Your task to perform on an android device: delete a single message in the gmail app Image 0: 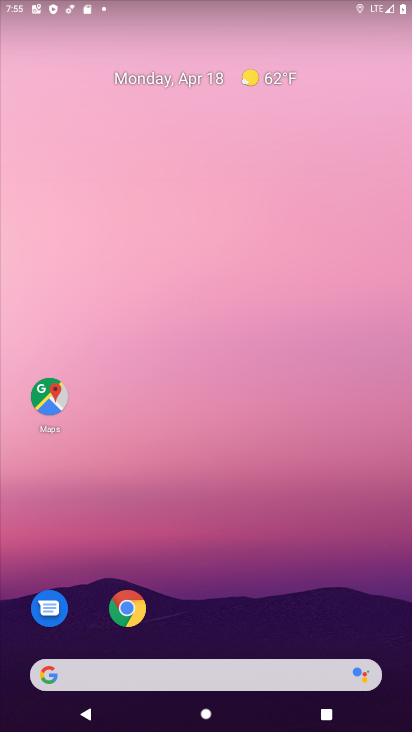
Step 0: drag from (207, 663) to (156, 115)
Your task to perform on an android device: delete a single message in the gmail app Image 1: 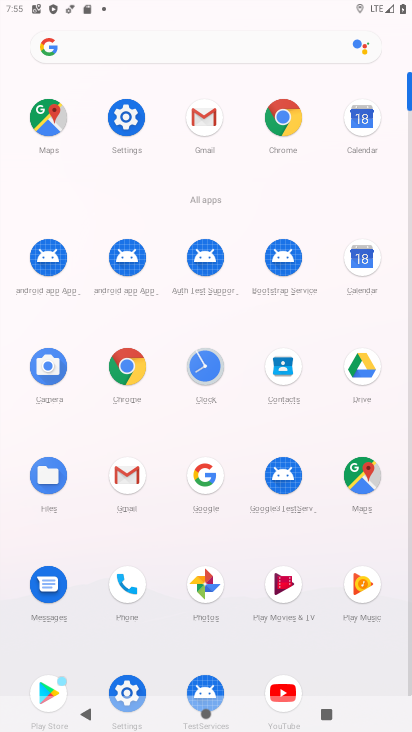
Step 1: click (201, 123)
Your task to perform on an android device: delete a single message in the gmail app Image 2: 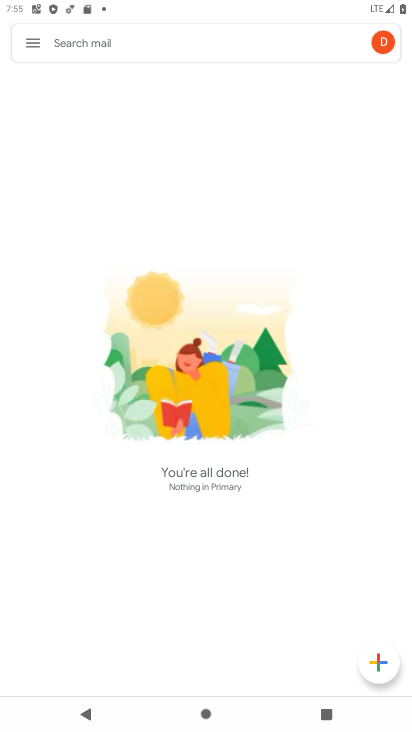
Step 2: click (23, 43)
Your task to perform on an android device: delete a single message in the gmail app Image 3: 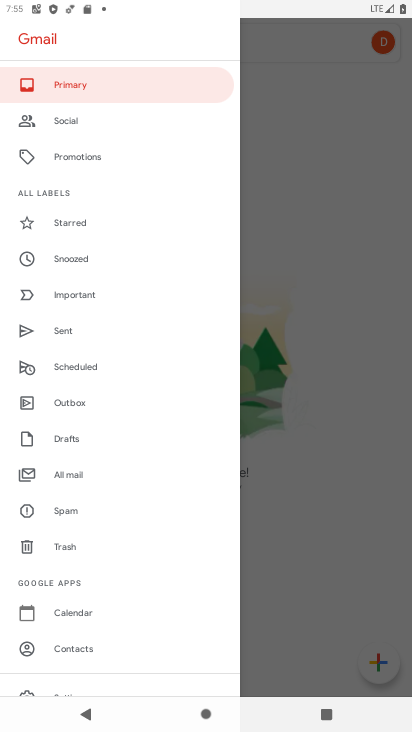
Step 3: click (74, 472)
Your task to perform on an android device: delete a single message in the gmail app Image 4: 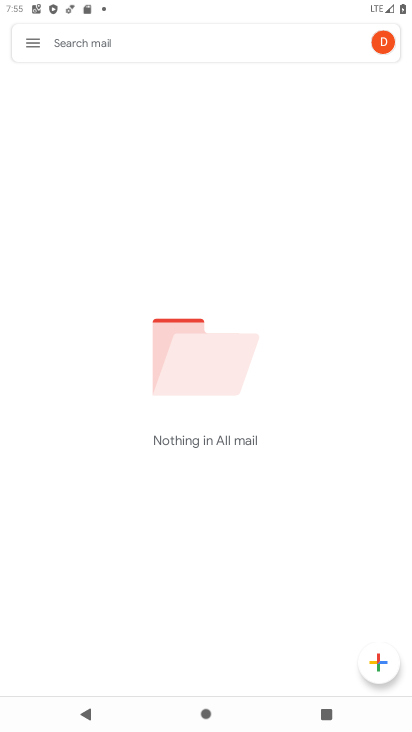
Step 4: task complete